Your task to perform on an android device: What's on my calendar today? Image 0: 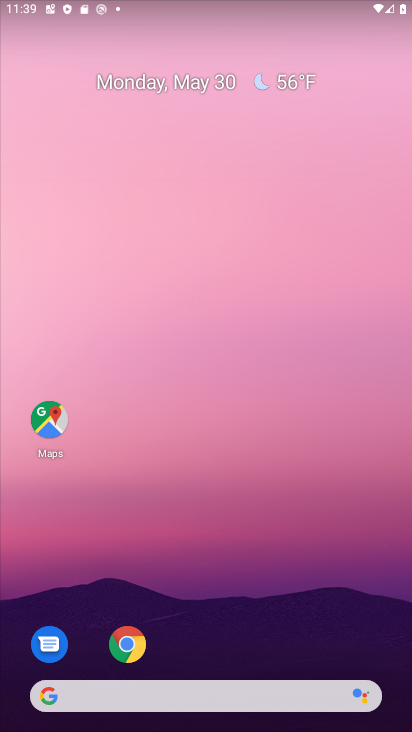
Step 0: drag from (166, 642) to (218, 350)
Your task to perform on an android device: What's on my calendar today? Image 1: 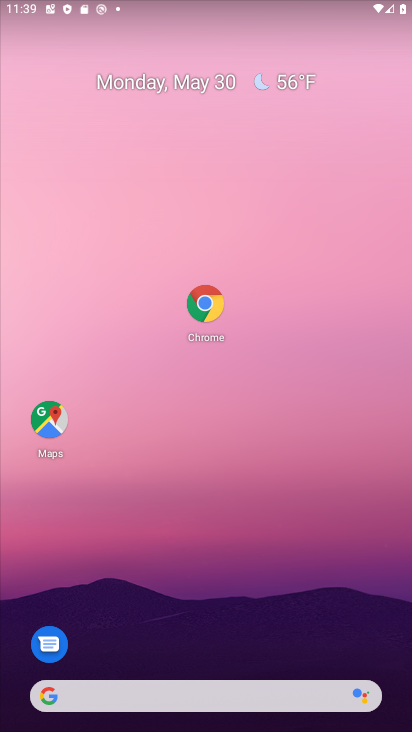
Step 1: drag from (222, 627) to (219, 503)
Your task to perform on an android device: What's on my calendar today? Image 2: 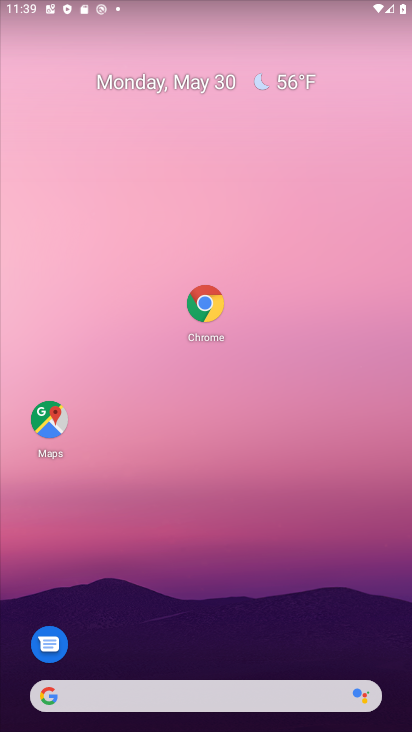
Step 2: drag from (171, 574) to (284, 11)
Your task to perform on an android device: What's on my calendar today? Image 3: 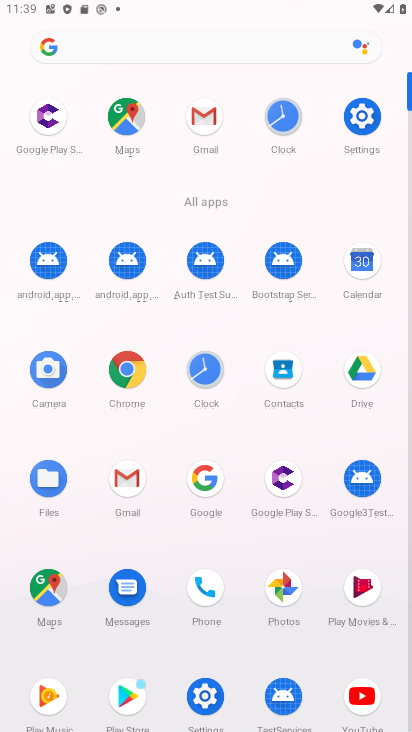
Step 3: click (376, 277)
Your task to perform on an android device: What's on my calendar today? Image 4: 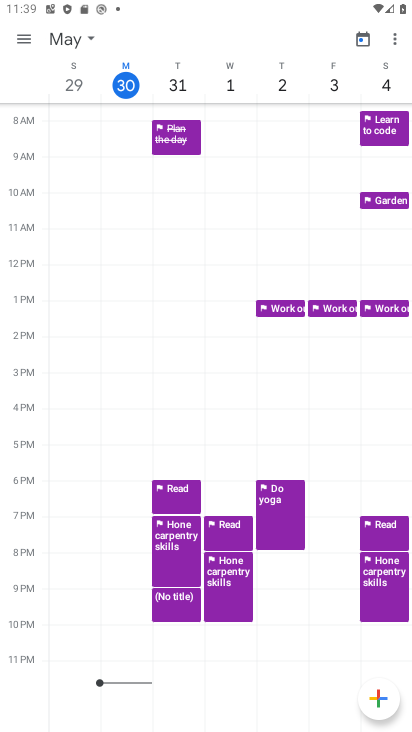
Step 4: click (13, 33)
Your task to perform on an android device: What's on my calendar today? Image 5: 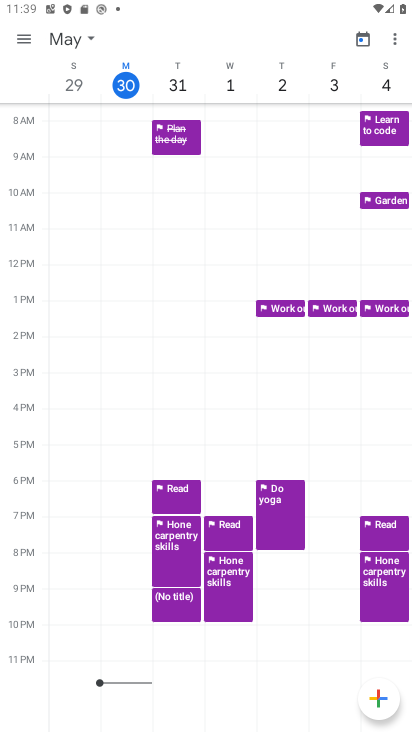
Step 5: click (23, 32)
Your task to perform on an android device: What's on my calendar today? Image 6: 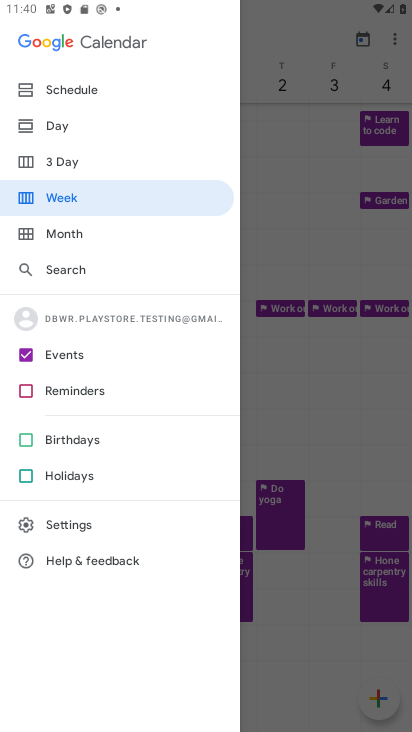
Step 6: click (66, 134)
Your task to perform on an android device: What's on my calendar today? Image 7: 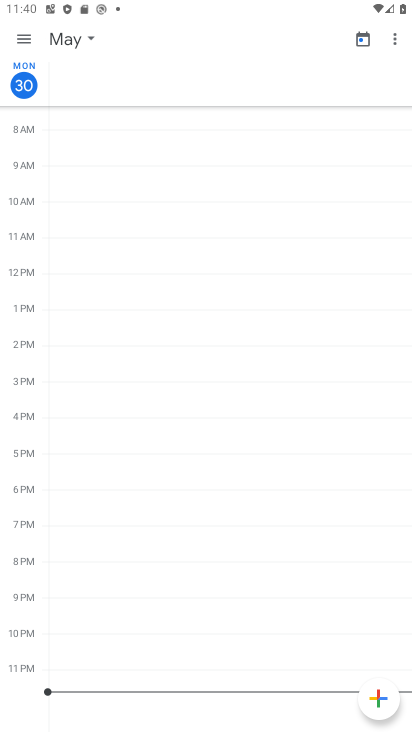
Step 7: click (65, 132)
Your task to perform on an android device: What's on my calendar today? Image 8: 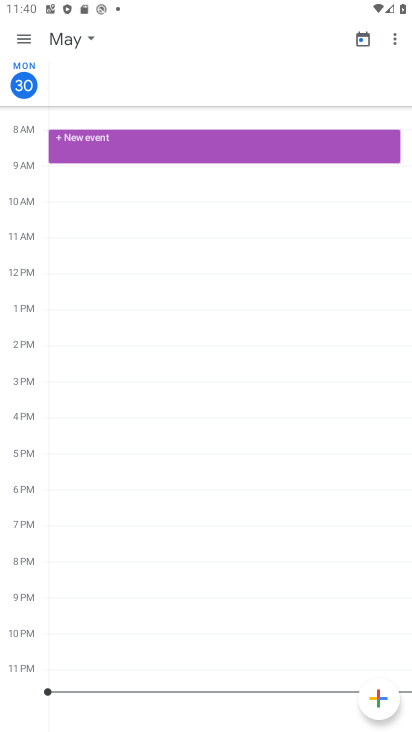
Step 8: click (185, 252)
Your task to perform on an android device: What's on my calendar today? Image 9: 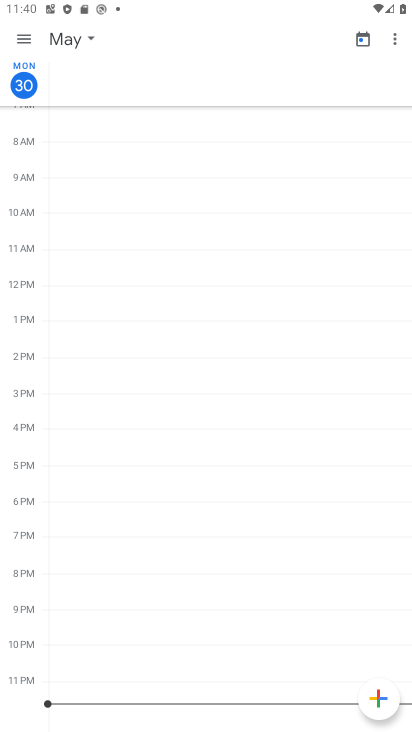
Step 9: task complete